Your task to perform on an android device: turn on data saver in the chrome app Image 0: 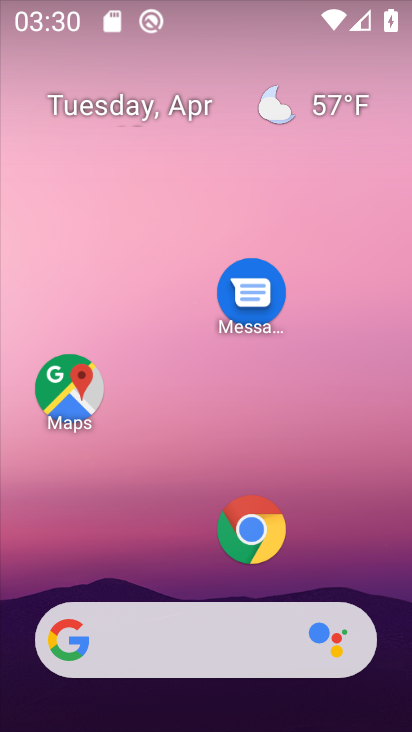
Step 0: click (250, 528)
Your task to perform on an android device: turn on data saver in the chrome app Image 1: 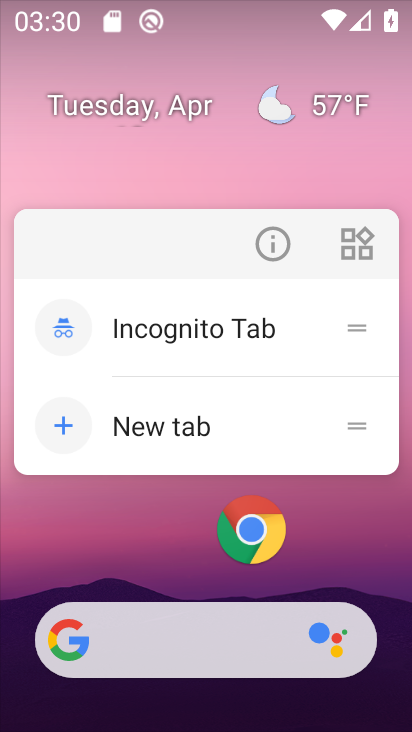
Step 1: click (250, 528)
Your task to perform on an android device: turn on data saver in the chrome app Image 2: 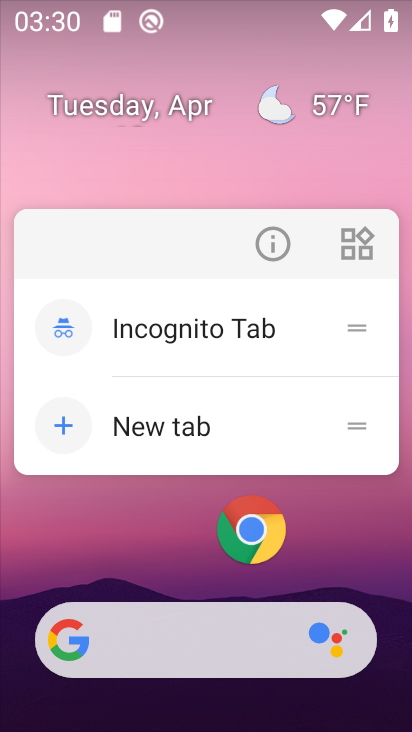
Step 2: click (250, 528)
Your task to perform on an android device: turn on data saver in the chrome app Image 3: 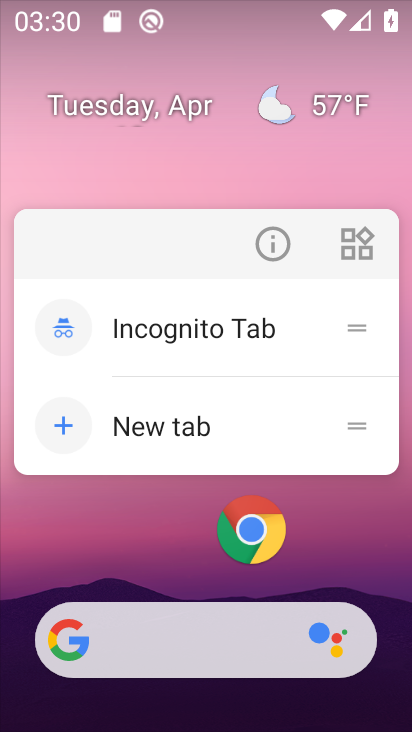
Step 3: click (250, 528)
Your task to perform on an android device: turn on data saver in the chrome app Image 4: 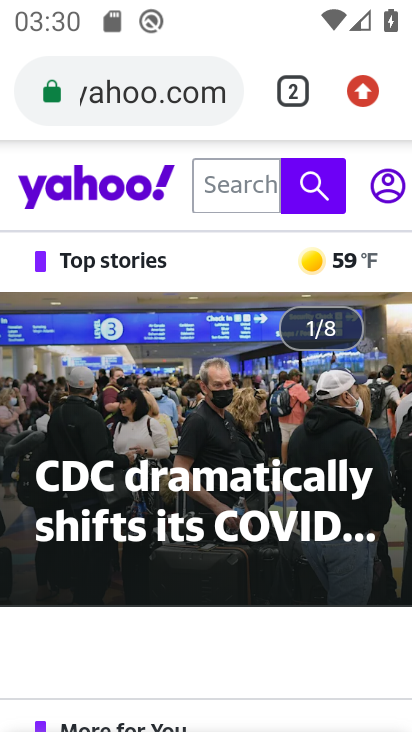
Step 4: click (363, 89)
Your task to perform on an android device: turn on data saver in the chrome app Image 5: 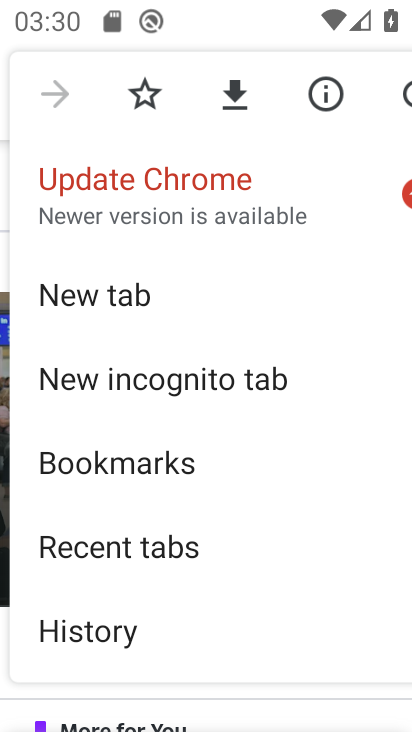
Step 5: drag from (236, 585) to (232, 196)
Your task to perform on an android device: turn on data saver in the chrome app Image 6: 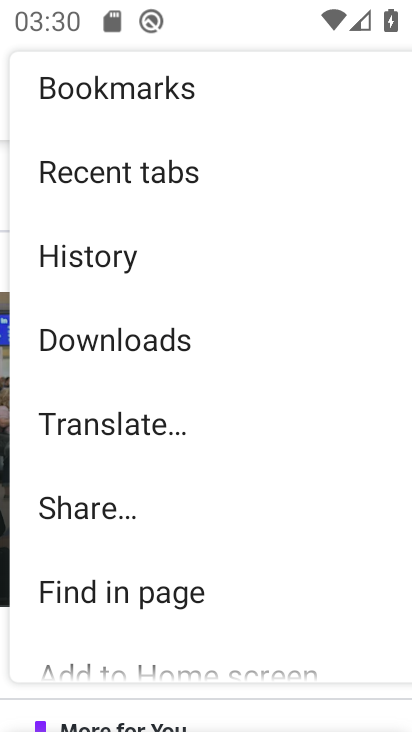
Step 6: drag from (217, 548) to (210, 229)
Your task to perform on an android device: turn on data saver in the chrome app Image 7: 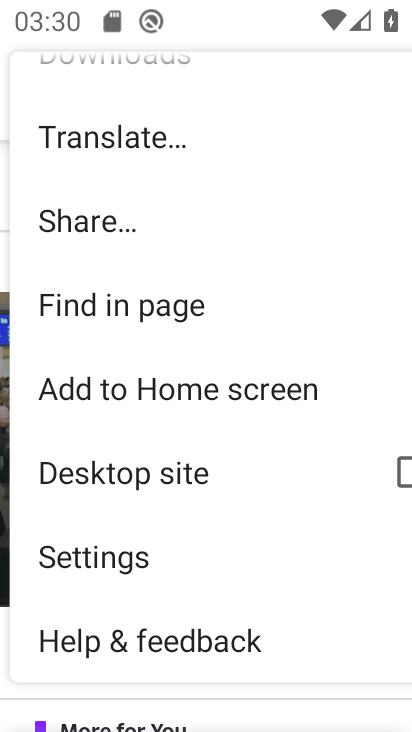
Step 7: click (131, 563)
Your task to perform on an android device: turn on data saver in the chrome app Image 8: 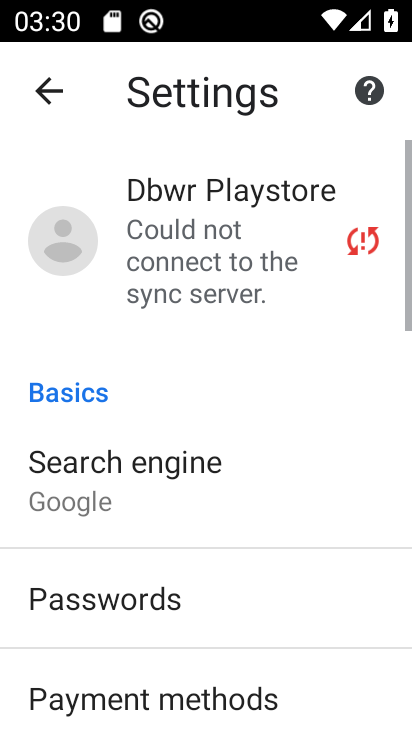
Step 8: drag from (215, 583) to (212, 262)
Your task to perform on an android device: turn on data saver in the chrome app Image 9: 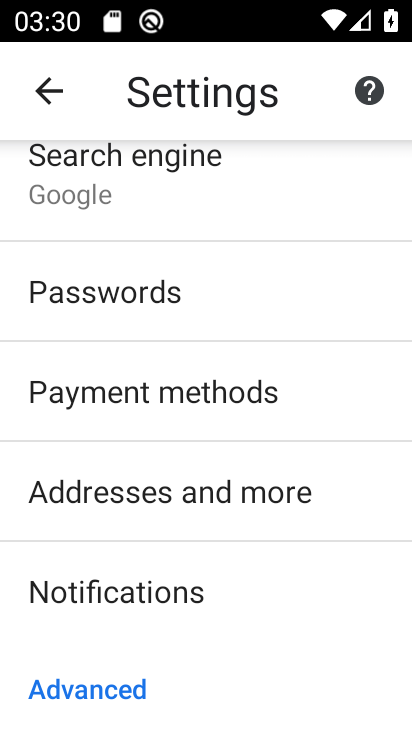
Step 9: drag from (191, 591) to (226, 235)
Your task to perform on an android device: turn on data saver in the chrome app Image 10: 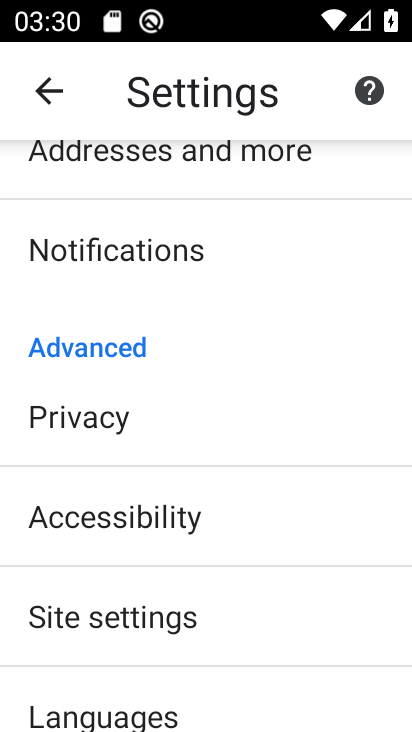
Step 10: drag from (142, 618) to (159, 365)
Your task to perform on an android device: turn on data saver in the chrome app Image 11: 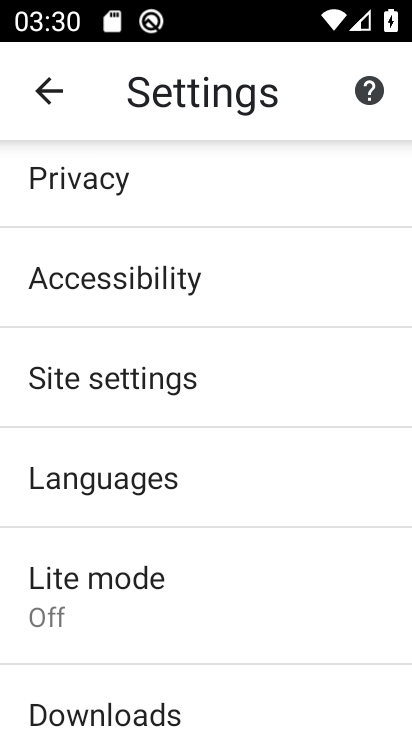
Step 11: click (106, 603)
Your task to perform on an android device: turn on data saver in the chrome app Image 12: 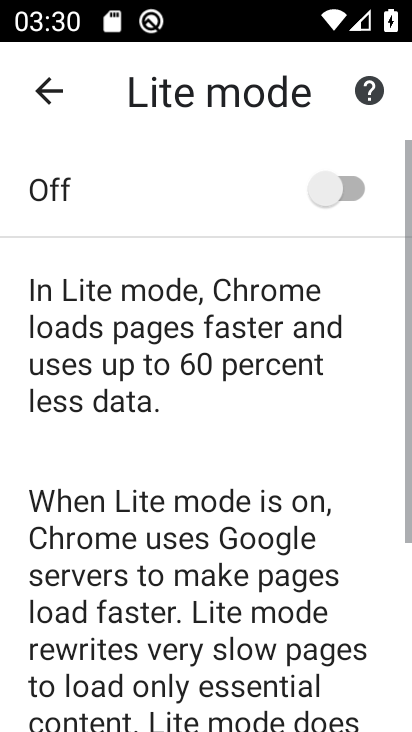
Step 12: click (327, 196)
Your task to perform on an android device: turn on data saver in the chrome app Image 13: 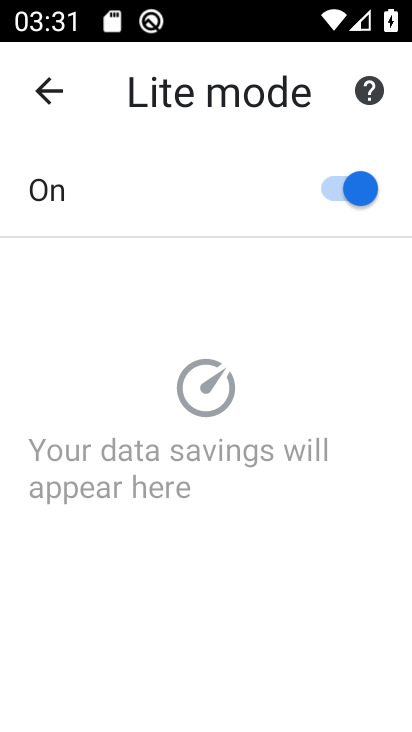
Step 13: task complete